Your task to perform on an android device: turn off javascript in the chrome app Image 0: 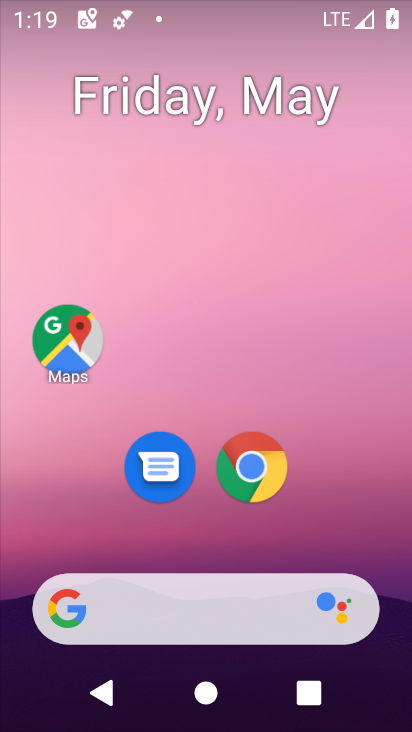
Step 0: drag from (375, 532) to (367, 32)
Your task to perform on an android device: turn off javascript in the chrome app Image 1: 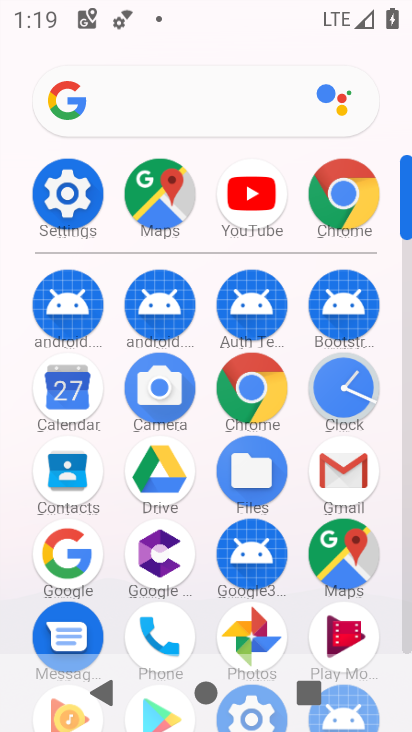
Step 1: click (350, 205)
Your task to perform on an android device: turn off javascript in the chrome app Image 2: 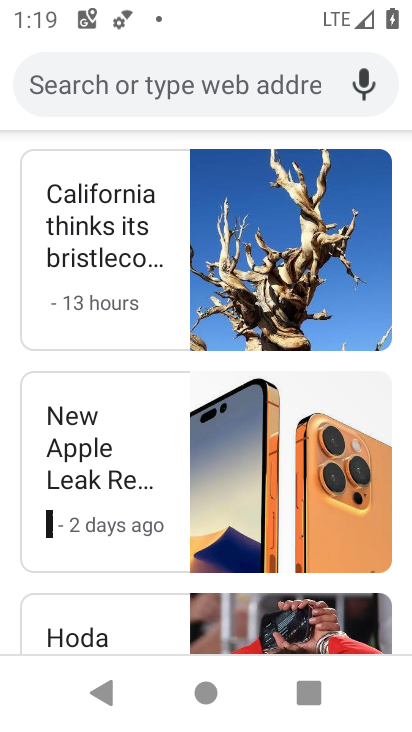
Step 2: drag from (161, 192) to (165, 688)
Your task to perform on an android device: turn off javascript in the chrome app Image 3: 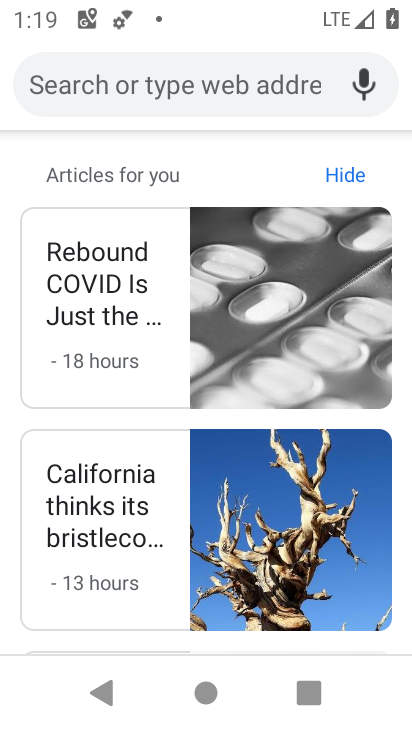
Step 3: drag from (183, 182) to (170, 692)
Your task to perform on an android device: turn off javascript in the chrome app Image 4: 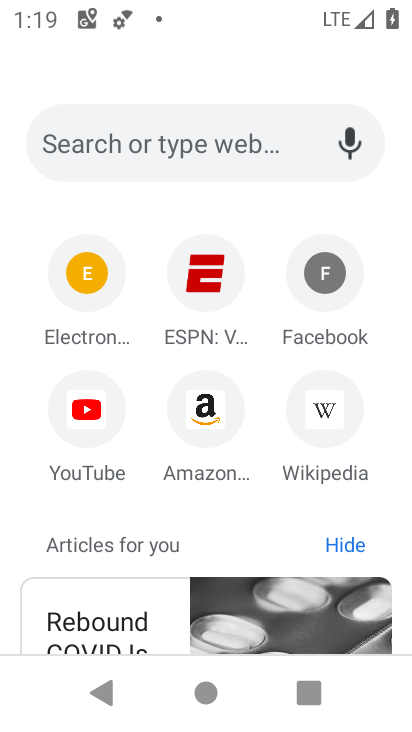
Step 4: drag from (179, 212) to (184, 619)
Your task to perform on an android device: turn off javascript in the chrome app Image 5: 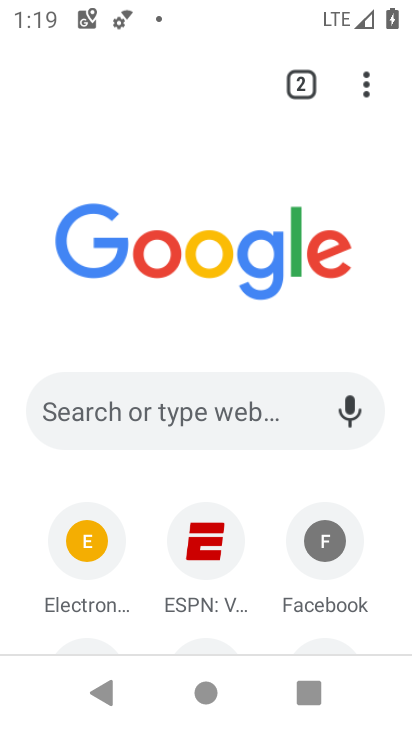
Step 5: drag from (368, 83) to (150, 524)
Your task to perform on an android device: turn off javascript in the chrome app Image 6: 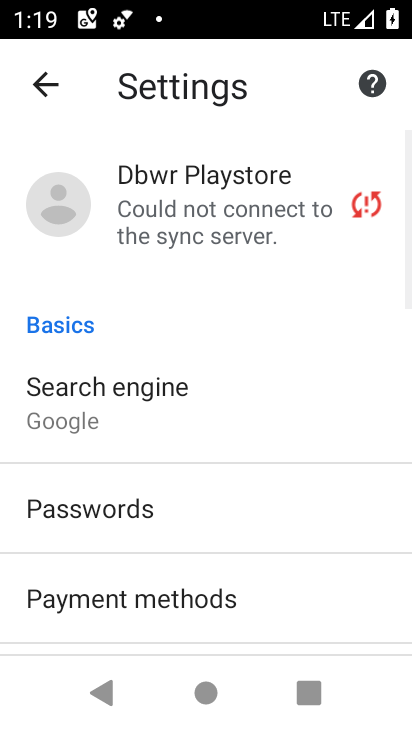
Step 6: drag from (187, 457) to (215, 150)
Your task to perform on an android device: turn off javascript in the chrome app Image 7: 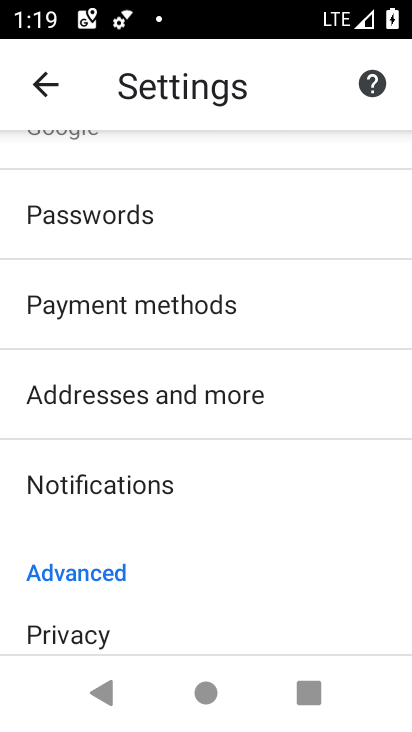
Step 7: drag from (152, 643) to (201, 215)
Your task to perform on an android device: turn off javascript in the chrome app Image 8: 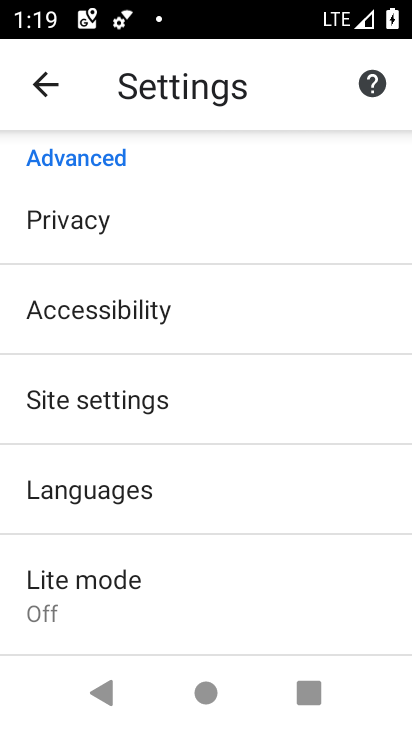
Step 8: click (131, 392)
Your task to perform on an android device: turn off javascript in the chrome app Image 9: 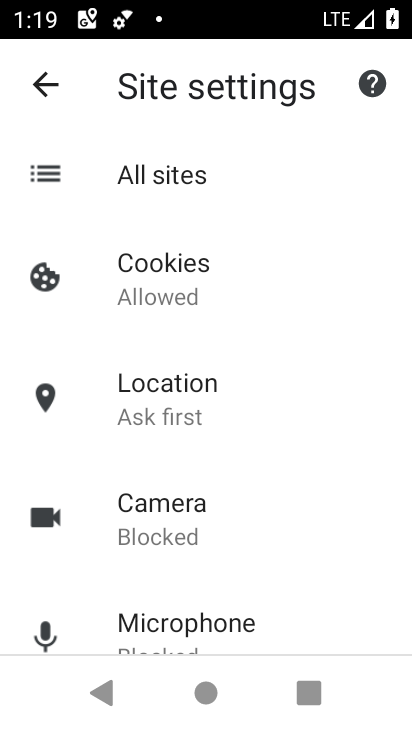
Step 9: drag from (196, 570) to (229, 176)
Your task to perform on an android device: turn off javascript in the chrome app Image 10: 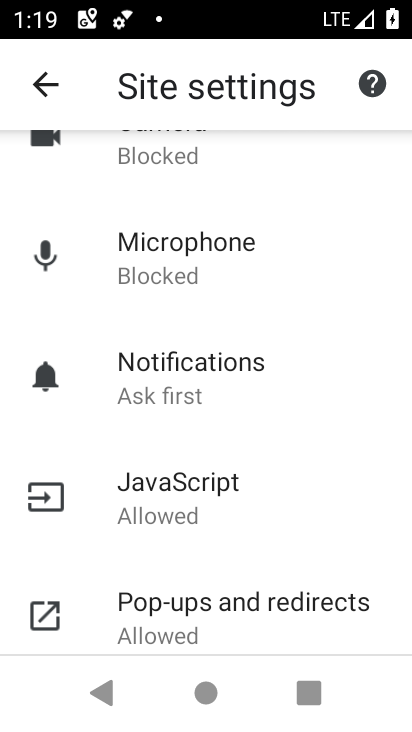
Step 10: click (171, 505)
Your task to perform on an android device: turn off javascript in the chrome app Image 11: 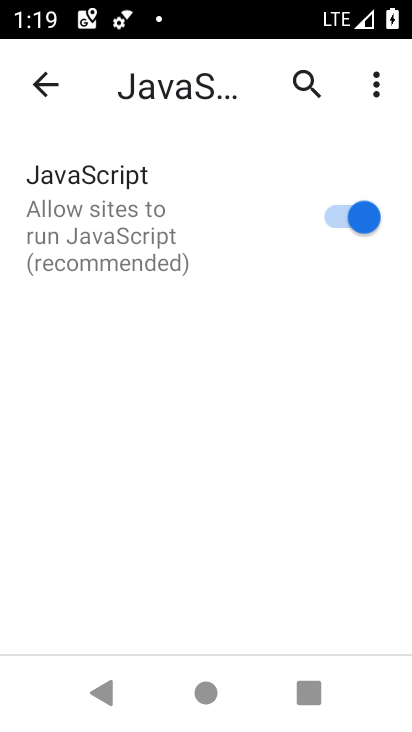
Step 11: click (337, 213)
Your task to perform on an android device: turn off javascript in the chrome app Image 12: 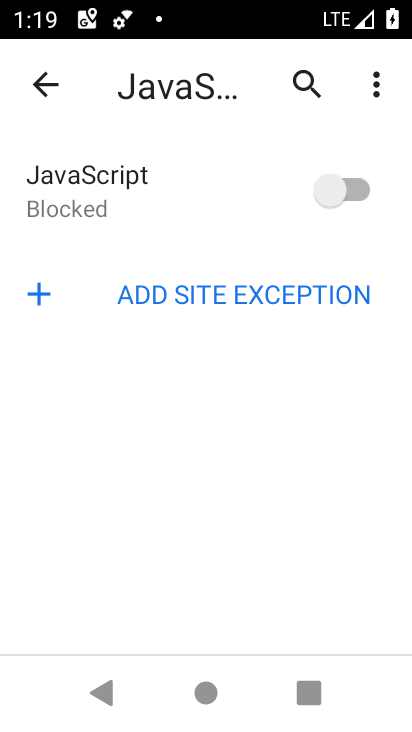
Step 12: task complete